Your task to perform on an android device: open app "Nova Launcher" (install if not already installed) and enter user name: "haggard@gmail.com" and password: "sadder" Image 0: 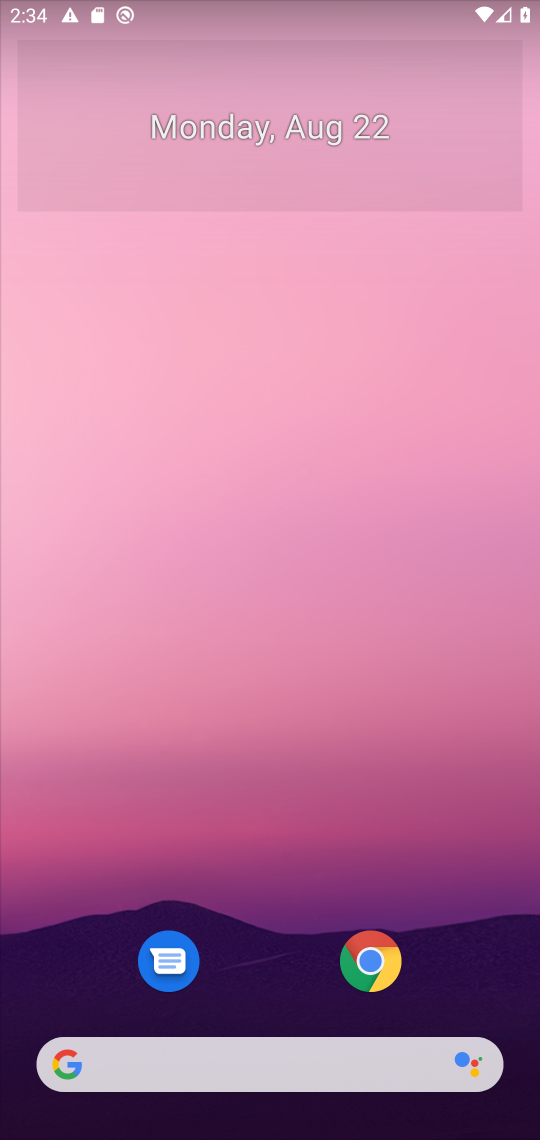
Step 0: press home button
Your task to perform on an android device: open app "Nova Launcher" (install if not already installed) and enter user name: "haggard@gmail.com" and password: "sadder" Image 1: 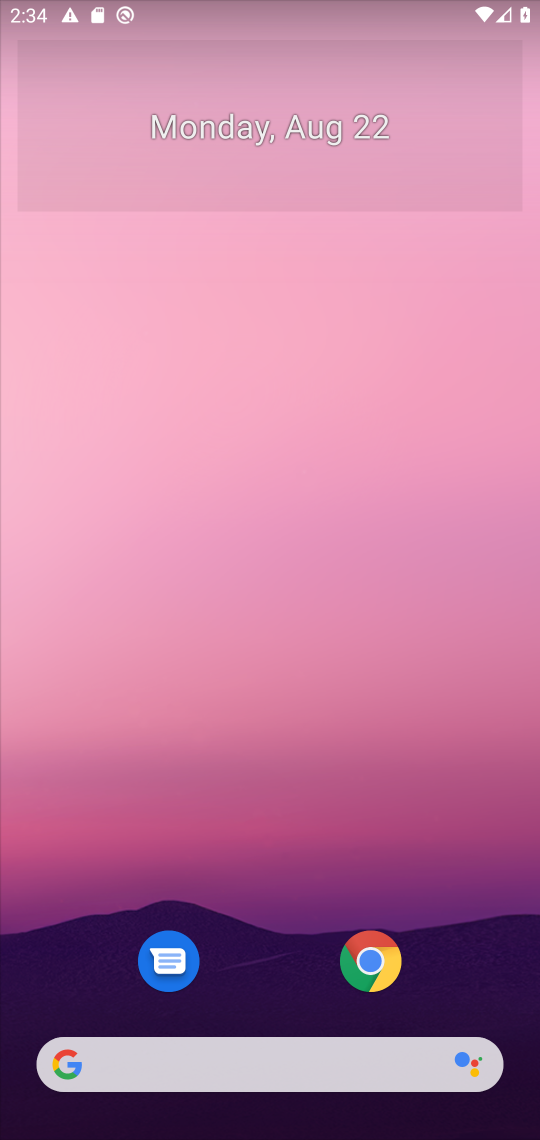
Step 1: drag from (462, 987) to (413, 162)
Your task to perform on an android device: open app "Nova Launcher" (install if not already installed) and enter user name: "haggard@gmail.com" and password: "sadder" Image 2: 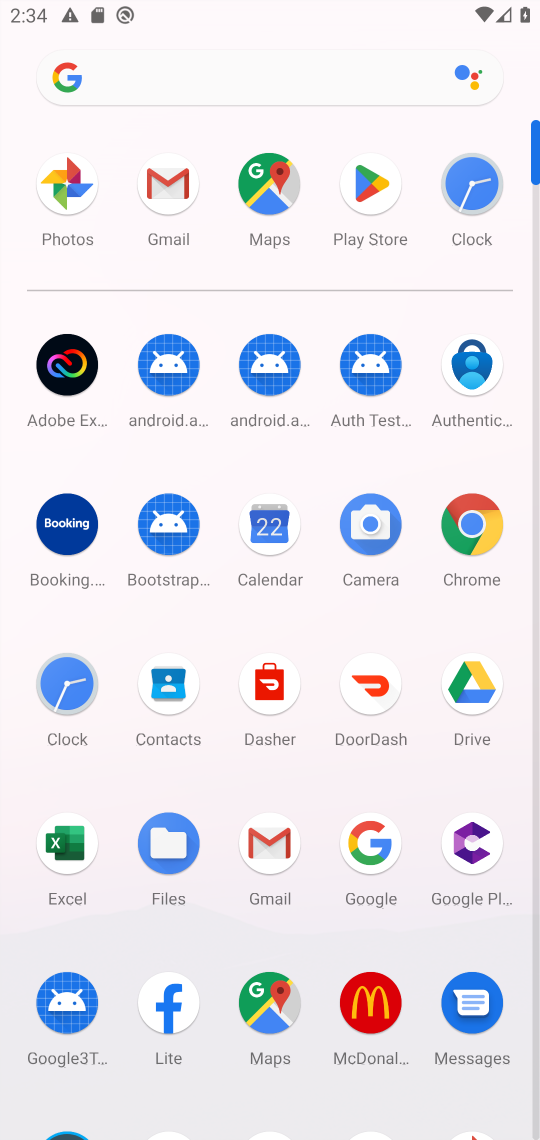
Step 2: click (367, 185)
Your task to perform on an android device: open app "Nova Launcher" (install if not already installed) and enter user name: "haggard@gmail.com" and password: "sadder" Image 3: 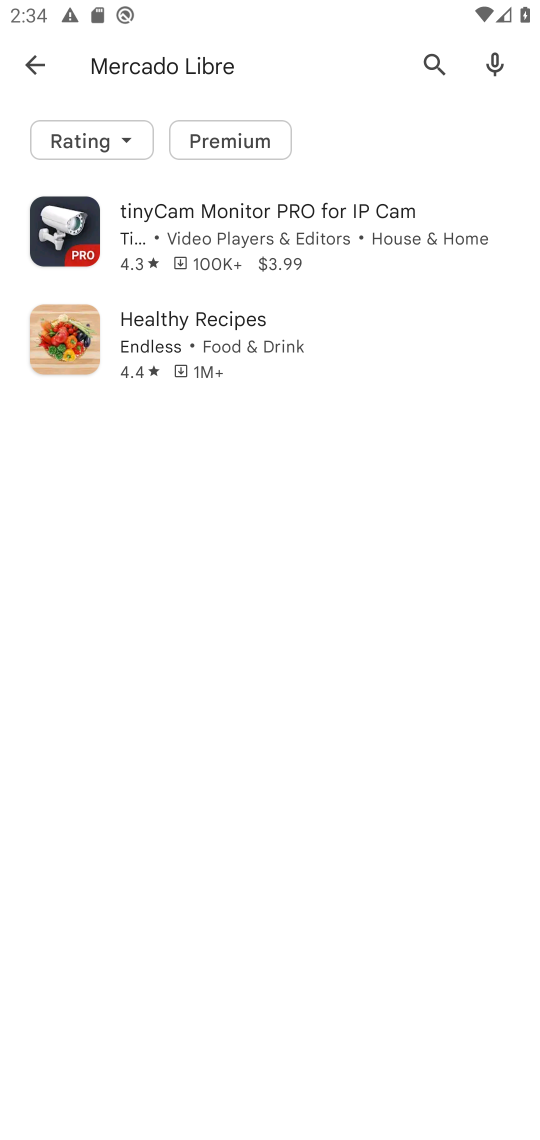
Step 3: press back button
Your task to perform on an android device: open app "Nova Launcher" (install if not already installed) and enter user name: "haggard@gmail.com" and password: "sadder" Image 4: 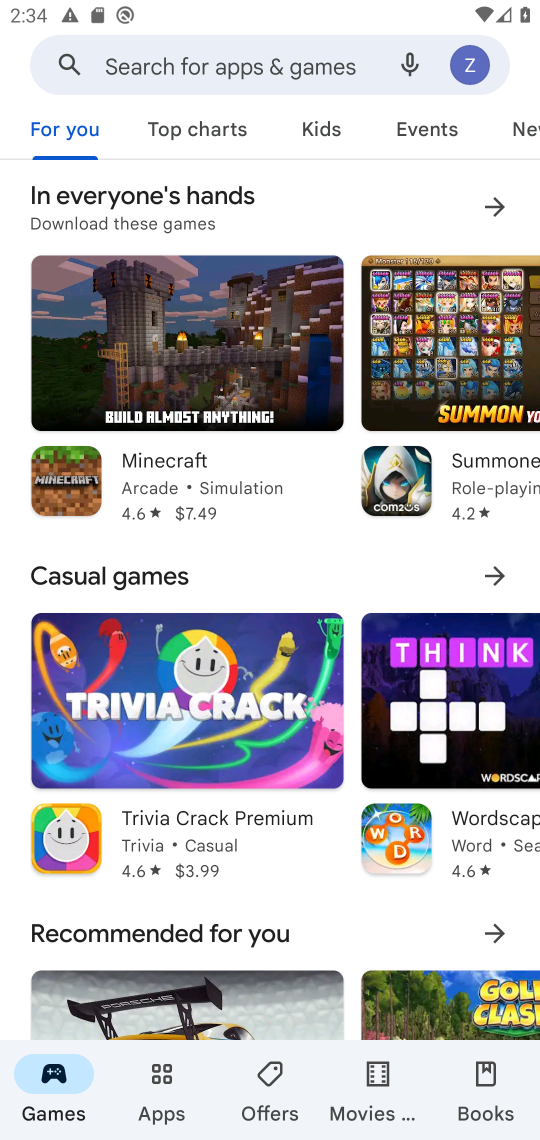
Step 4: click (269, 65)
Your task to perform on an android device: open app "Nova Launcher" (install if not already installed) and enter user name: "haggard@gmail.com" and password: "sadder" Image 5: 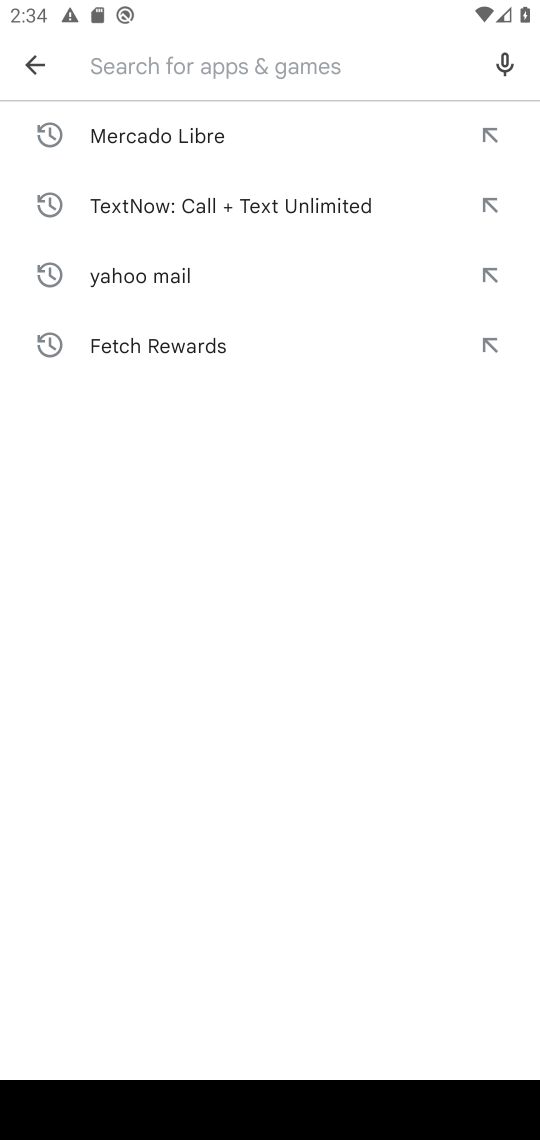
Step 5: type "Nova Launcher"
Your task to perform on an android device: open app "Nova Launcher" (install if not already installed) and enter user name: "haggard@gmail.com" and password: "sadder" Image 6: 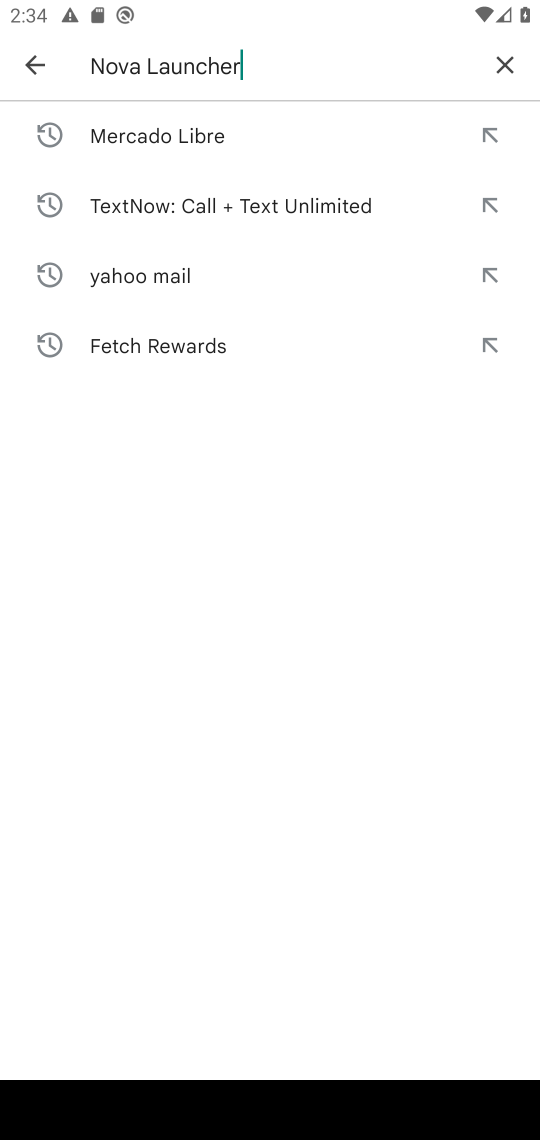
Step 6: press enter
Your task to perform on an android device: open app "Nova Launcher" (install if not already installed) and enter user name: "haggard@gmail.com" and password: "sadder" Image 7: 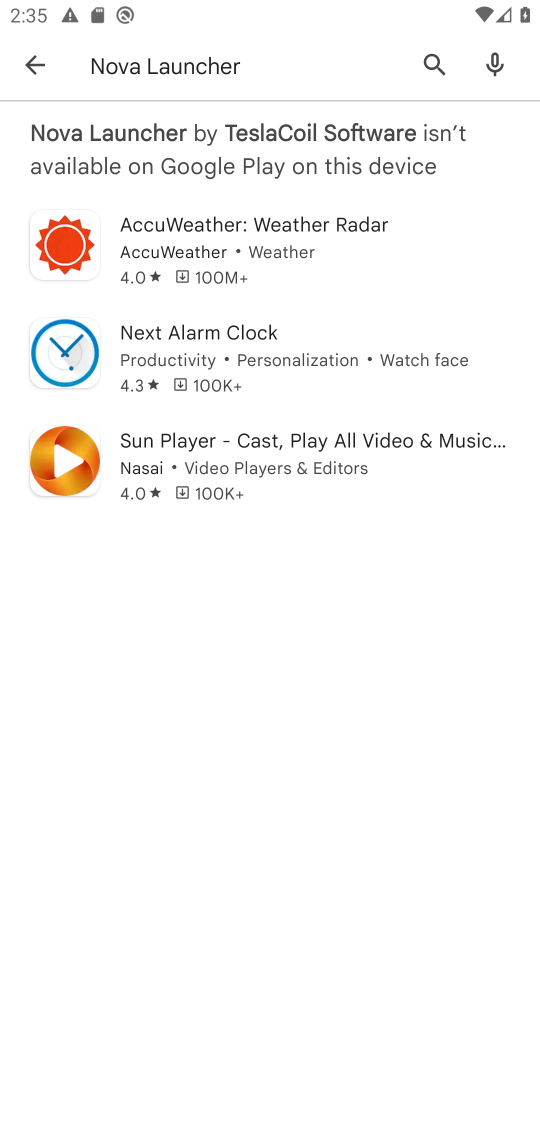
Step 7: task complete